Your task to perform on an android device: turn on wifi Image 0: 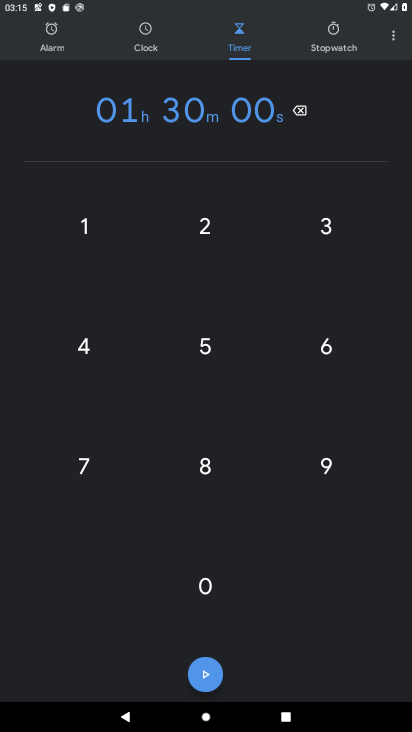
Step 0: press home button
Your task to perform on an android device: turn on wifi Image 1: 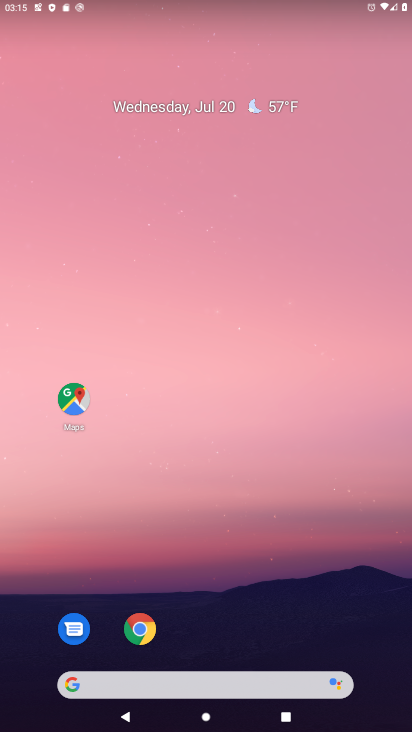
Step 1: drag from (375, 656) to (342, 78)
Your task to perform on an android device: turn on wifi Image 2: 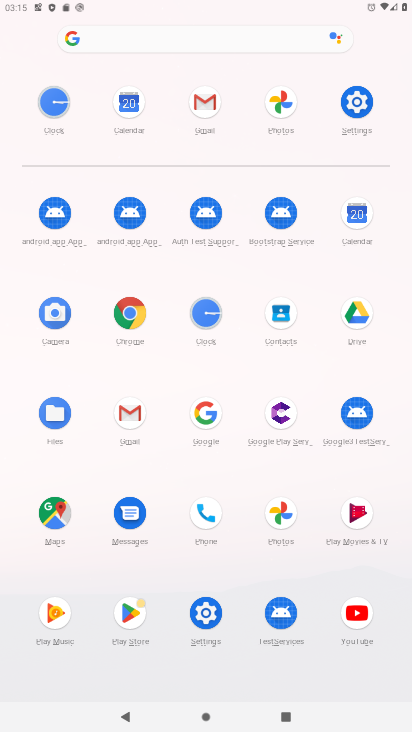
Step 2: click (205, 614)
Your task to perform on an android device: turn on wifi Image 3: 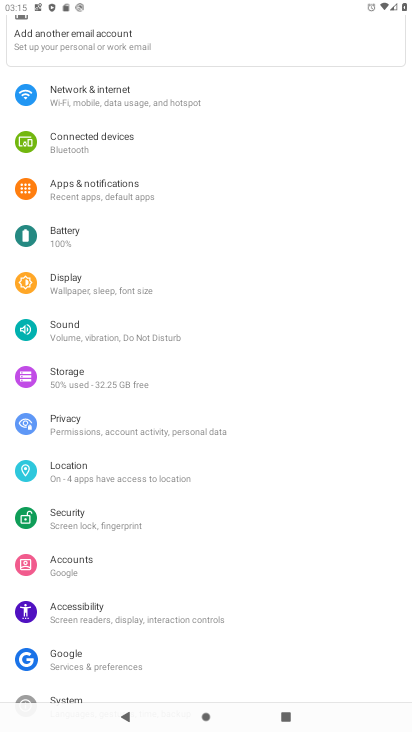
Step 3: click (71, 93)
Your task to perform on an android device: turn on wifi Image 4: 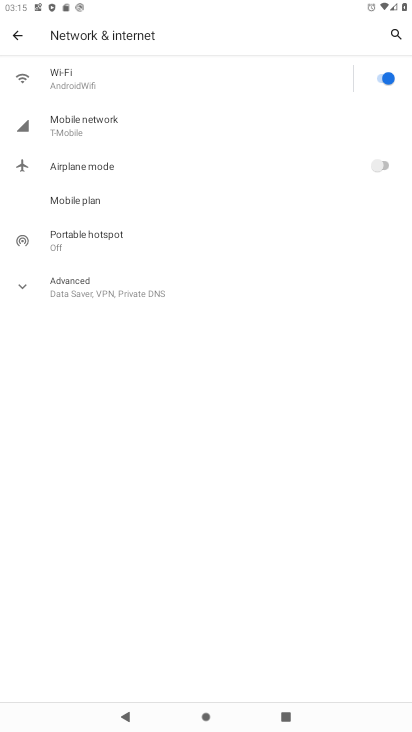
Step 4: task complete